Your task to perform on an android device: Go to calendar. Show me events next week Image 0: 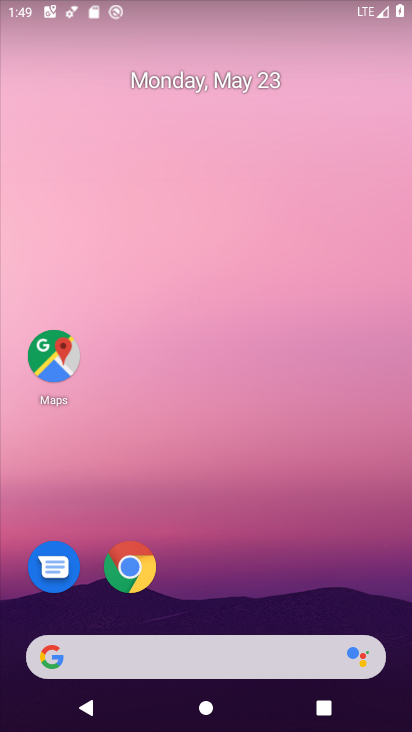
Step 0: drag from (243, 622) to (242, 254)
Your task to perform on an android device: Go to calendar. Show me events next week Image 1: 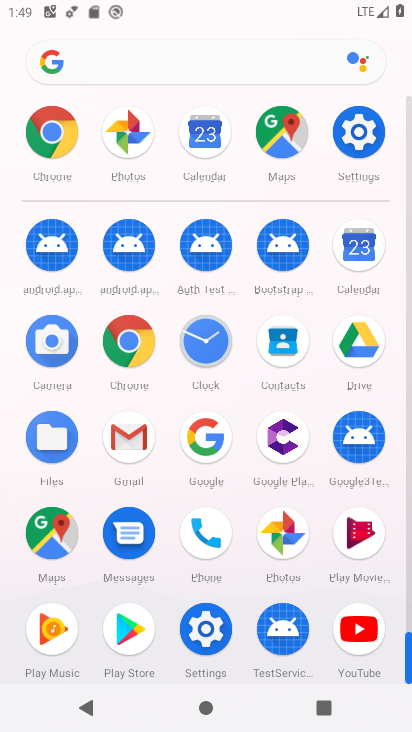
Step 1: click (378, 259)
Your task to perform on an android device: Go to calendar. Show me events next week Image 2: 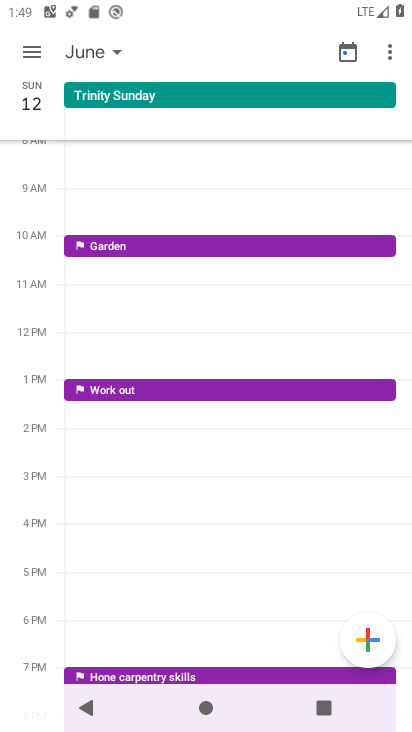
Step 2: click (24, 62)
Your task to perform on an android device: Go to calendar. Show me events next week Image 3: 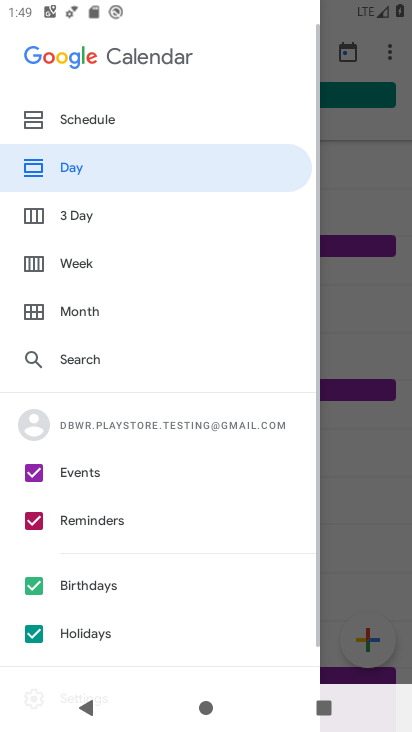
Step 3: click (91, 260)
Your task to perform on an android device: Go to calendar. Show me events next week Image 4: 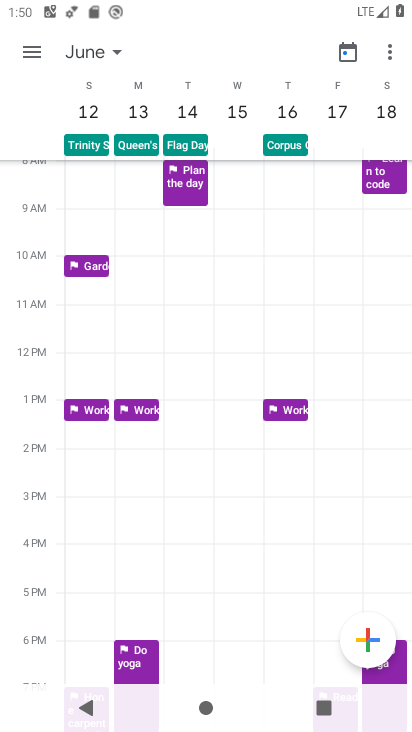
Step 4: click (119, 49)
Your task to perform on an android device: Go to calendar. Show me events next week Image 5: 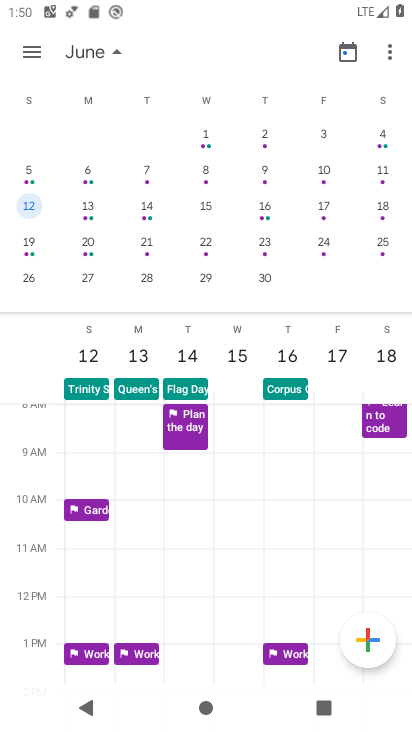
Step 5: drag from (33, 226) to (372, 257)
Your task to perform on an android device: Go to calendar. Show me events next week Image 6: 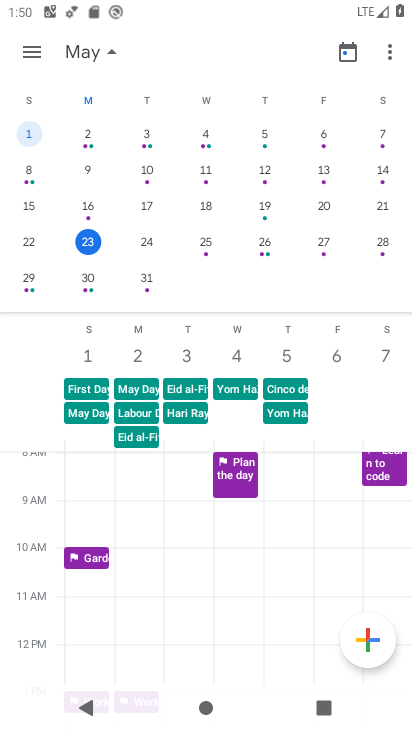
Step 6: click (22, 280)
Your task to perform on an android device: Go to calendar. Show me events next week Image 7: 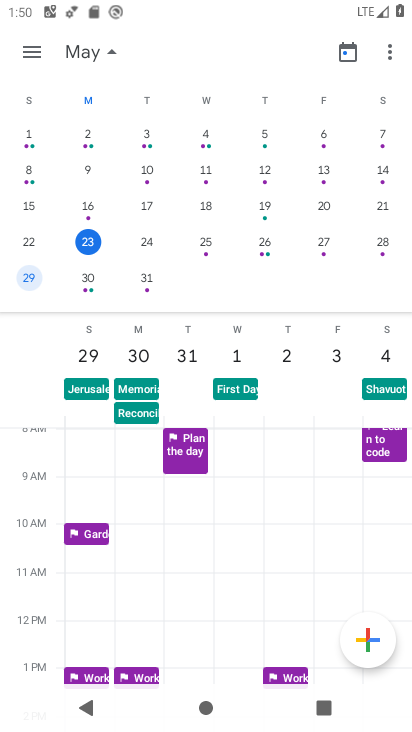
Step 7: click (96, 57)
Your task to perform on an android device: Go to calendar. Show me events next week Image 8: 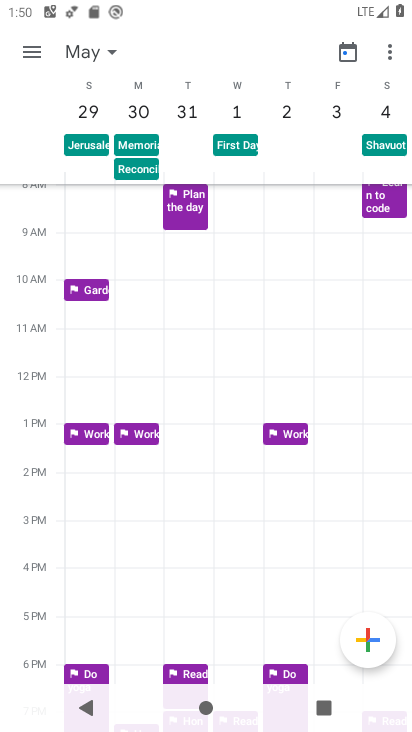
Step 8: task complete